Your task to perform on an android device: Go to wifi settings Image 0: 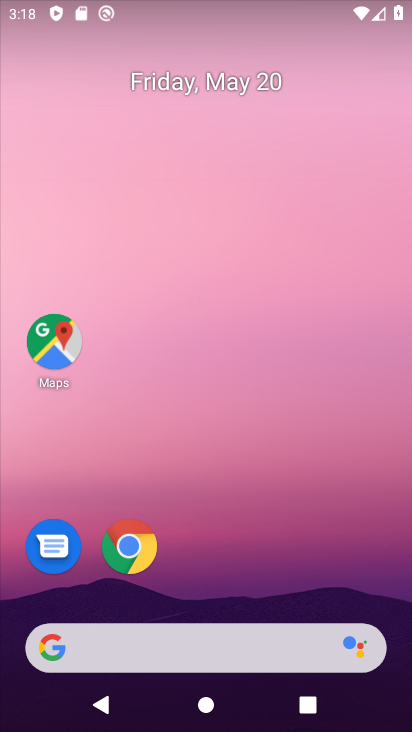
Step 0: drag from (323, 481) to (325, 98)
Your task to perform on an android device: Go to wifi settings Image 1: 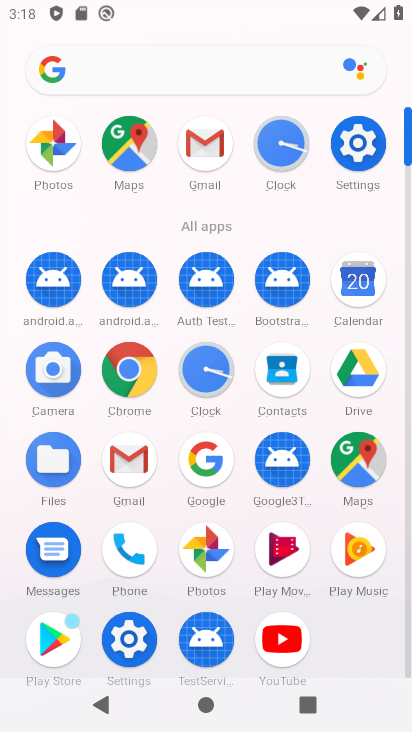
Step 1: click (366, 153)
Your task to perform on an android device: Go to wifi settings Image 2: 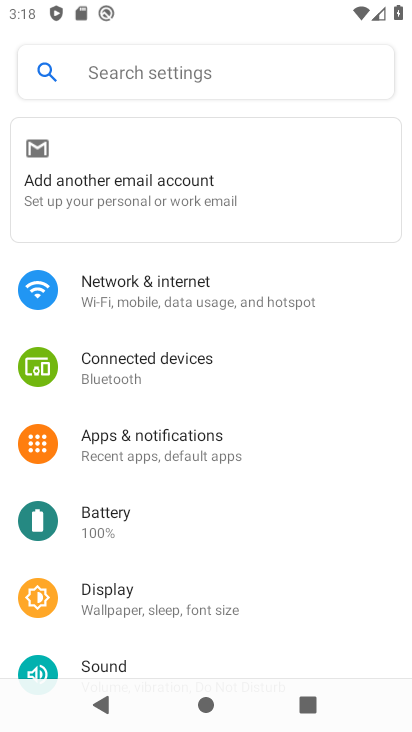
Step 2: click (149, 290)
Your task to perform on an android device: Go to wifi settings Image 3: 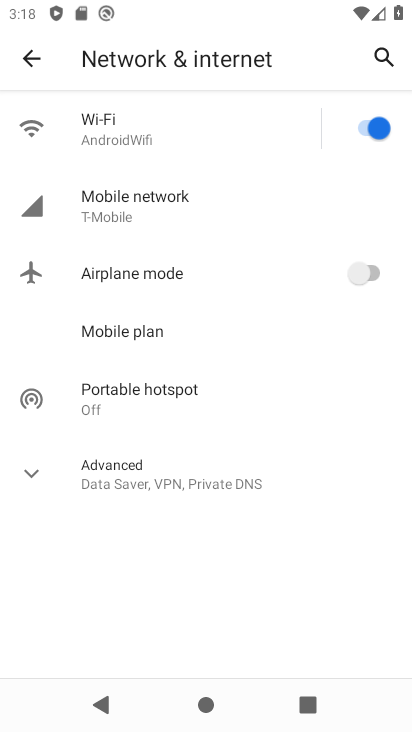
Step 3: click (144, 125)
Your task to perform on an android device: Go to wifi settings Image 4: 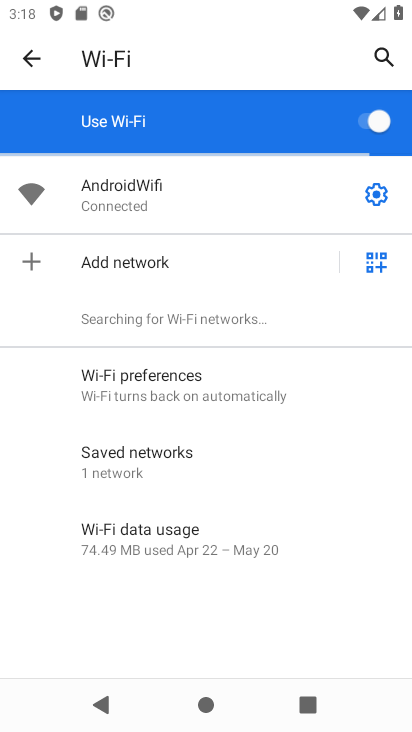
Step 4: click (379, 191)
Your task to perform on an android device: Go to wifi settings Image 5: 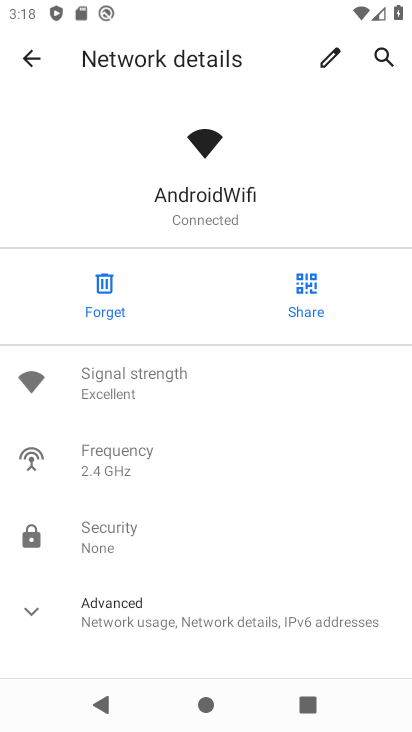
Step 5: task complete